Your task to perform on an android device: turn on translation in the chrome app Image 0: 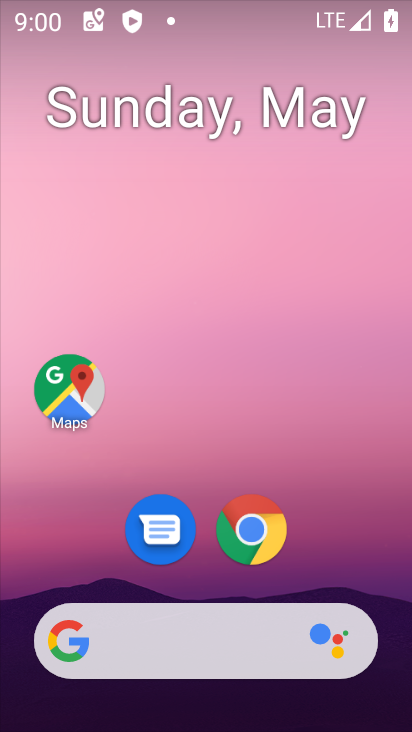
Step 0: click (254, 542)
Your task to perform on an android device: turn on translation in the chrome app Image 1: 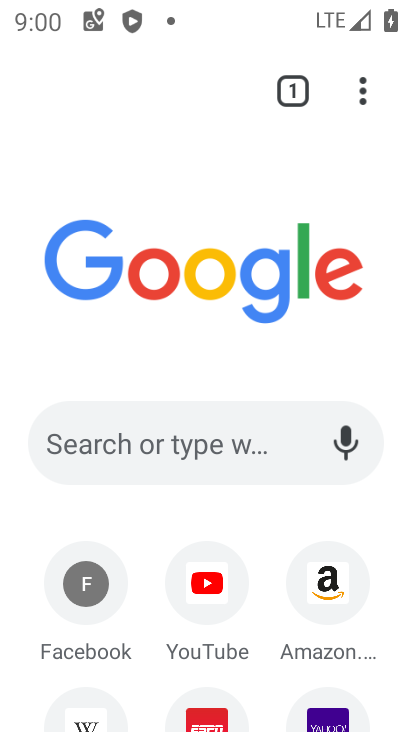
Step 1: click (360, 107)
Your task to perform on an android device: turn on translation in the chrome app Image 2: 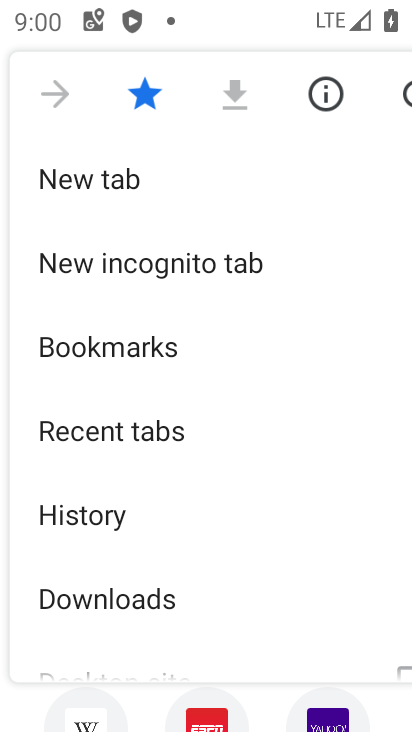
Step 2: click (351, 86)
Your task to perform on an android device: turn on translation in the chrome app Image 3: 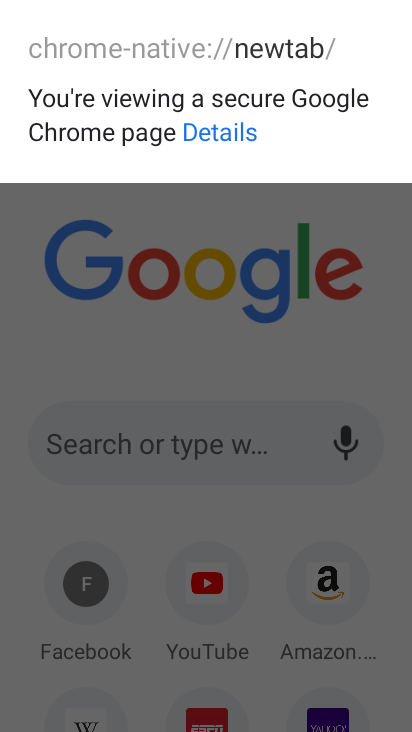
Step 3: click (319, 244)
Your task to perform on an android device: turn on translation in the chrome app Image 4: 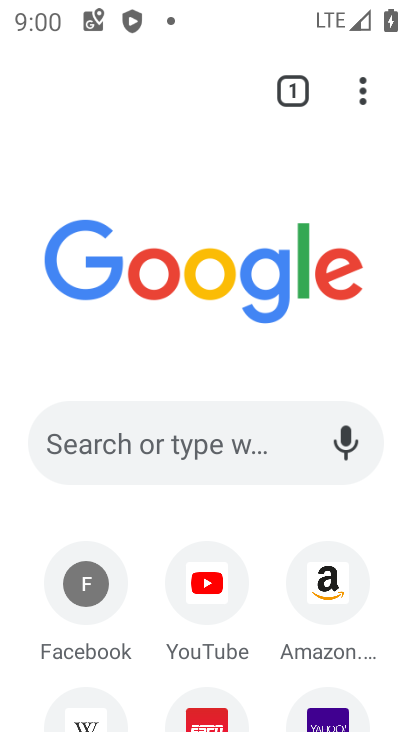
Step 4: click (354, 88)
Your task to perform on an android device: turn on translation in the chrome app Image 5: 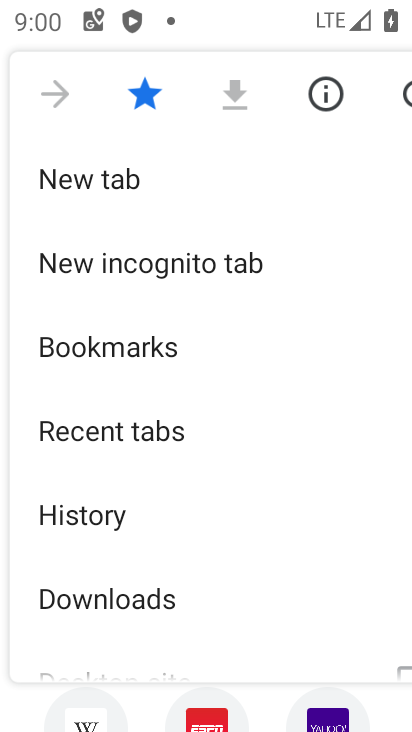
Step 5: drag from (202, 605) to (197, 271)
Your task to perform on an android device: turn on translation in the chrome app Image 6: 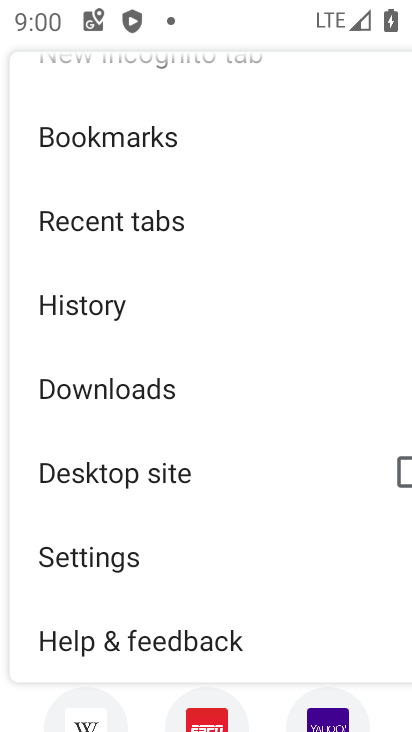
Step 6: click (155, 554)
Your task to perform on an android device: turn on translation in the chrome app Image 7: 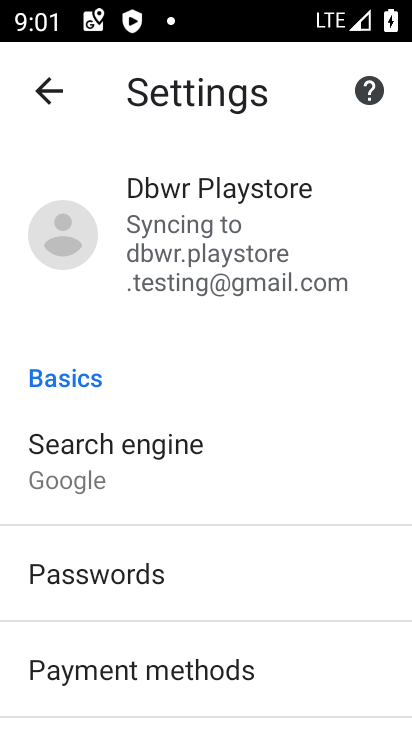
Step 7: drag from (171, 629) to (183, 284)
Your task to perform on an android device: turn on translation in the chrome app Image 8: 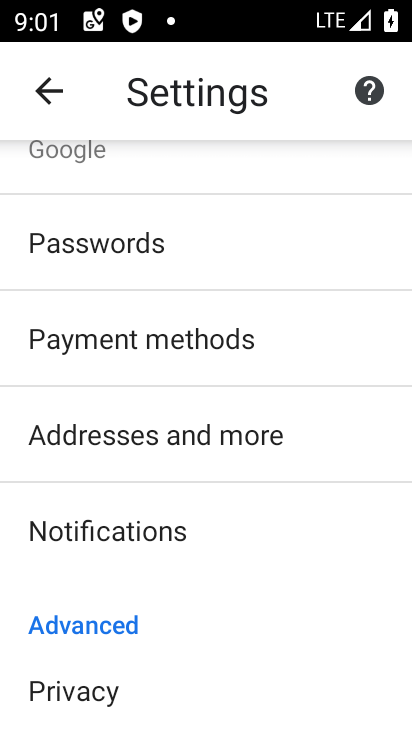
Step 8: drag from (202, 665) to (215, 378)
Your task to perform on an android device: turn on translation in the chrome app Image 9: 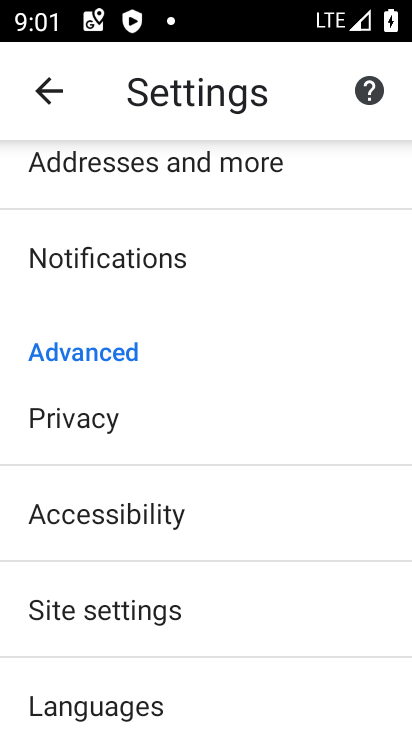
Step 9: click (158, 688)
Your task to perform on an android device: turn on translation in the chrome app Image 10: 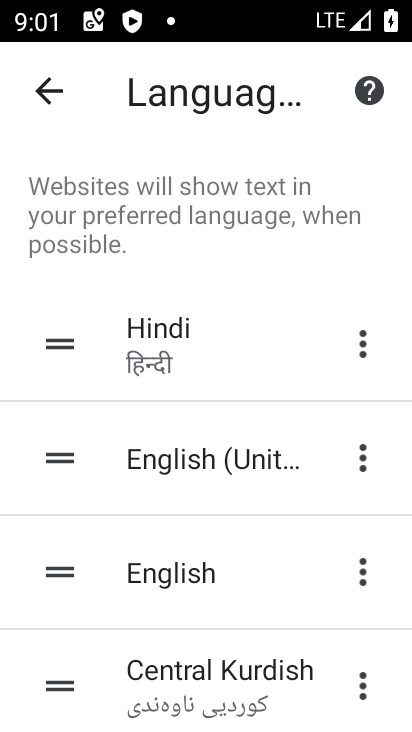
Step 10: task complete